Your task to perform on an android device: stop showing notifications on the lock screen Image 0: 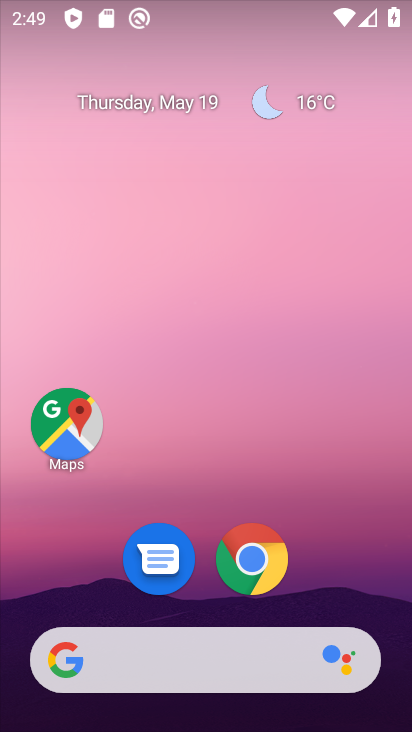
Step 0: drag from (202, 614) to (217, 162)
Your task to perform on an android device: stop showing notifications on the lock screen Image 1: 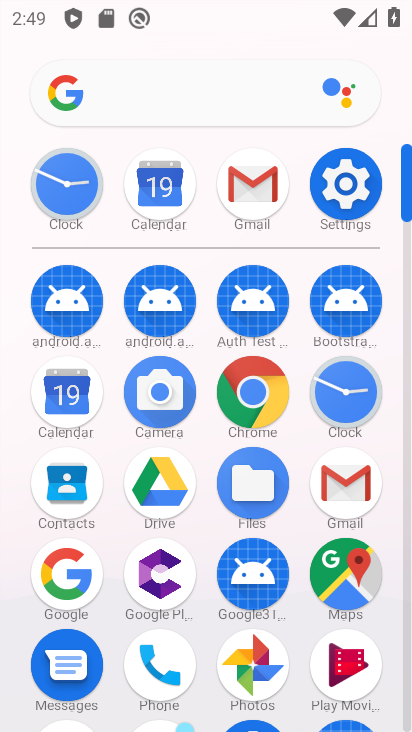
Step 1: click (323, 162)
Your task to perform on an android device: stop showing notifications on the lock screen Image 2: 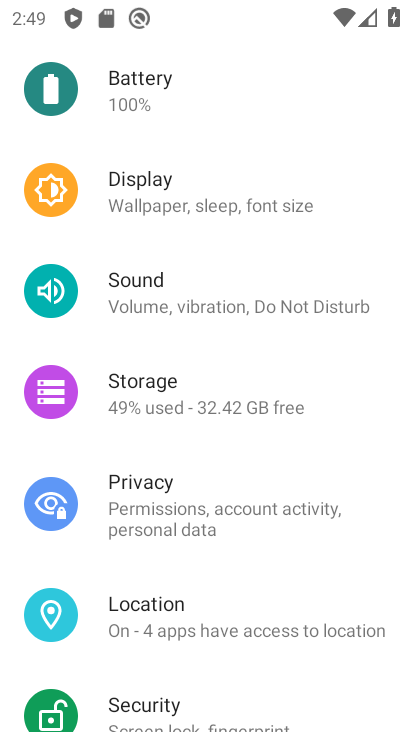
Step 2: drag from (254, 223) to (254, 599)
Your task to perform on an android device: stop showing notifications on the lock screen Image 3: 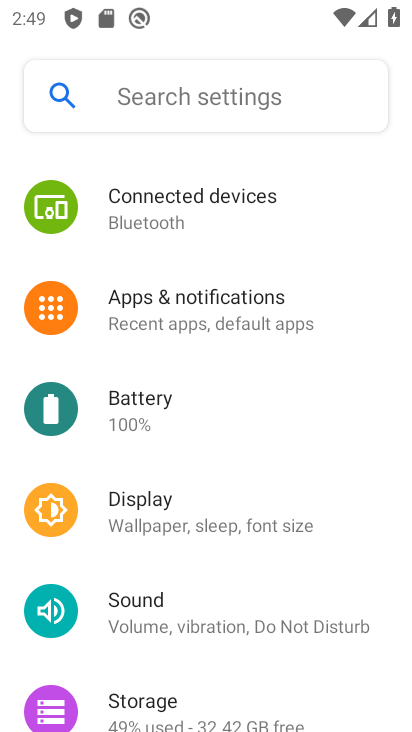
Step 3: click (244, 322)
Your task to perform on an android device: stop showing notifications on the lock screen Image 4: 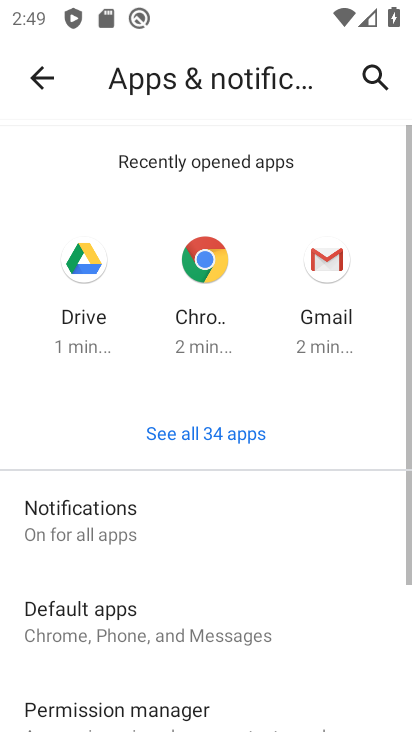
Step 4: click (164, 536)
Your task to perform on an android device: stop showing notifications on the lock screen Image 5: 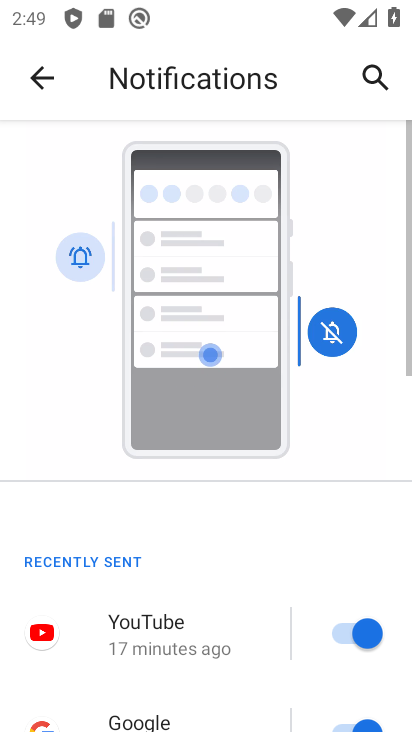
Step 5: drag from (233, 604) to (226, 295)
Your task to perform on an android device: stop showing notifications on the lock screen Image 6: 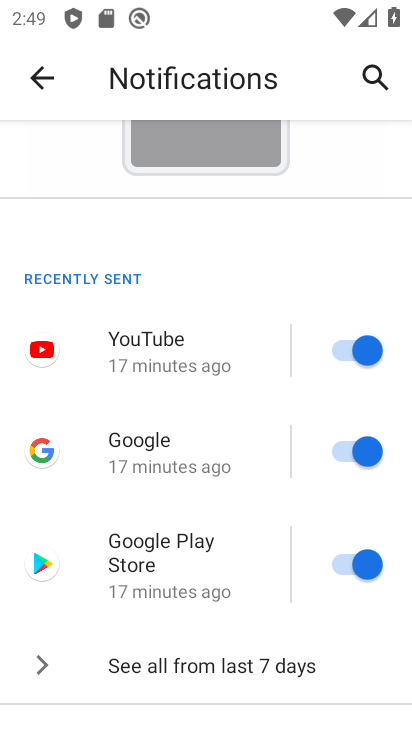
Step 6: drag from (234, 559) to (255, 315)
Your task to perform on an android device: stop showing notifications on the lock screen Image 7: 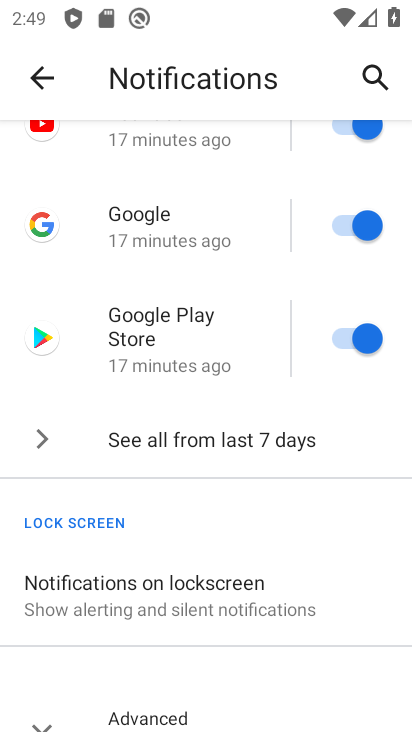
Step 7: drag from (254, 549) to (250, 441)
Your task to perform on an android device: stop showing notifications on the lock screen Image 8: 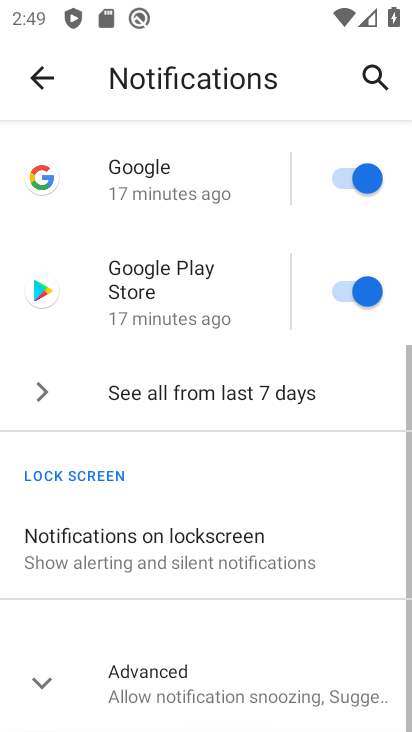
Step 8: click (203, 528)
Your task to perform on an android device: stop showing notifications on the lock screen Image 9: 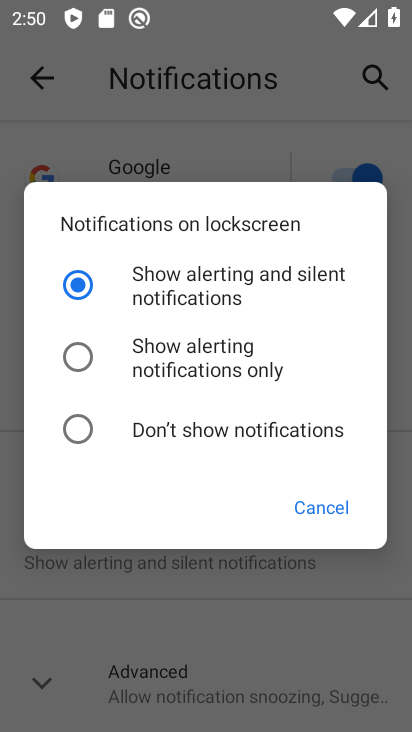
Step 9: click (160, 435)
Your task to perform on an android device: stop showing notifications on the lock screen Image 10: 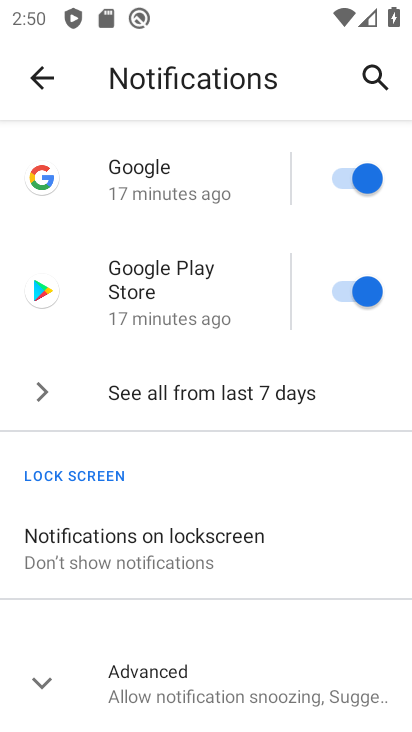
Step 10: task complete